Your task to perform on an android device: turn off wifi Image 0: 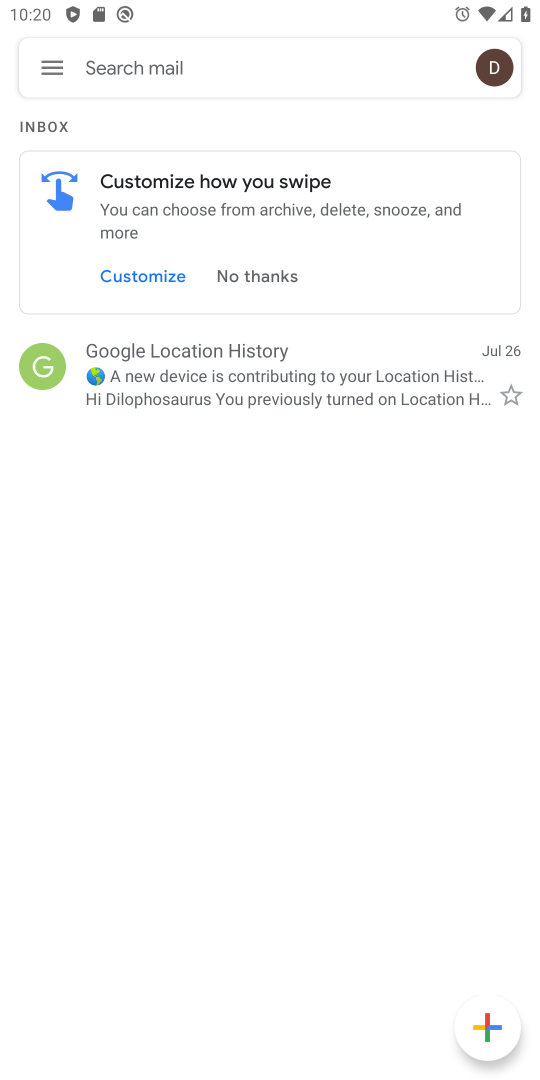
Step 0: press home button
Your task to perform on an android device: turn off wifi Image 1: 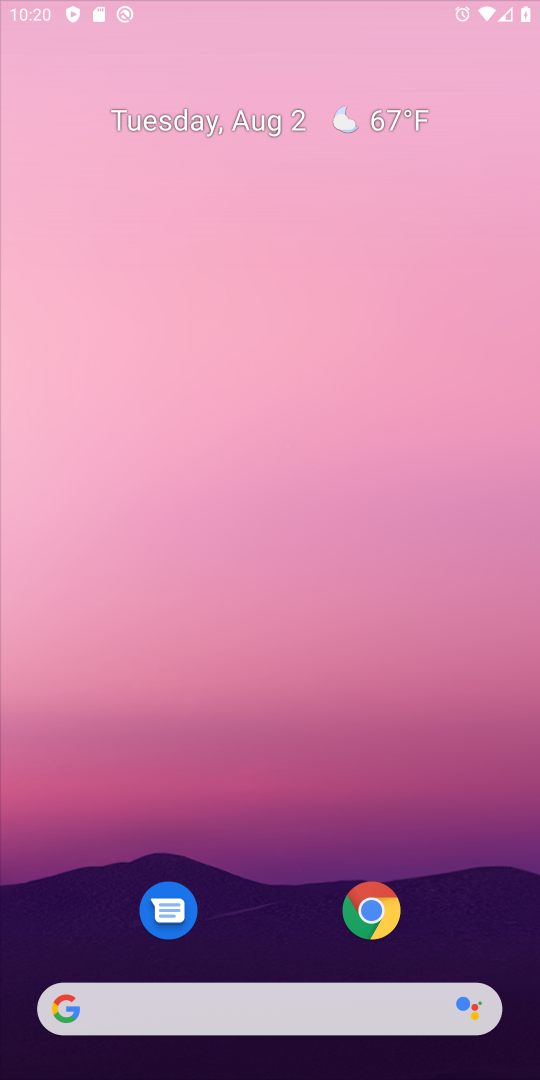
Step 1: drag from (262, 1056) to (281, 392)
Your task to perform on an android device: turn off wifi Image 2: 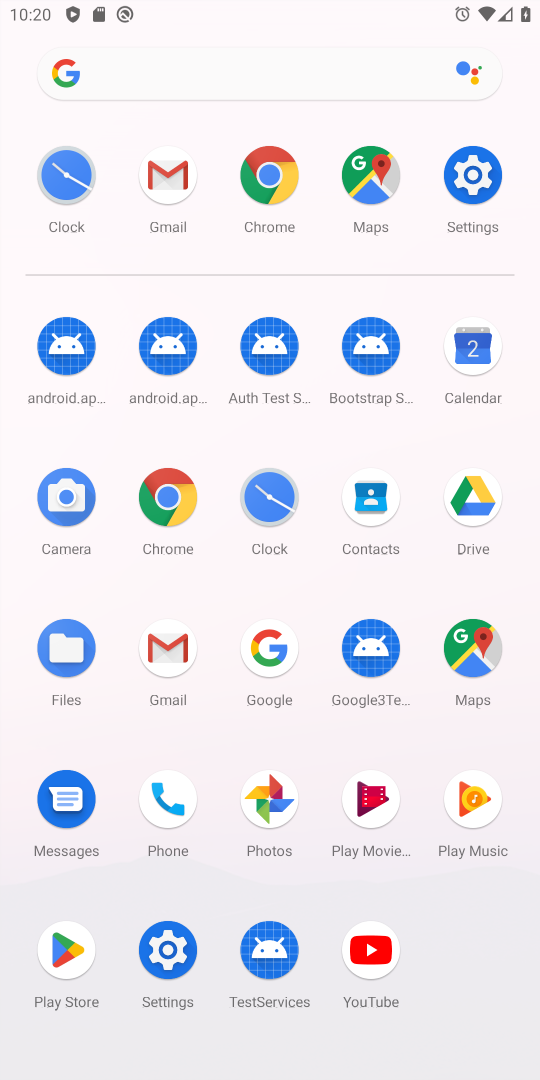
Step 2: click (469, 170)
Your task to perform on an android device: turn off wifi Image 3: 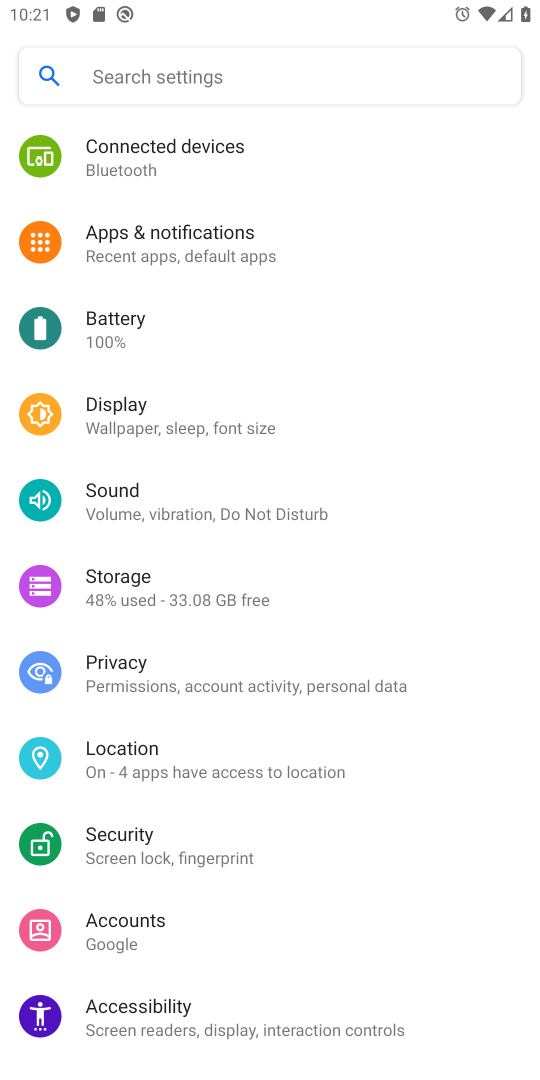
Step 3: drag from (161, 156) to (162, 790)
Your task to perform on an android device: turn off wifi Image 4: 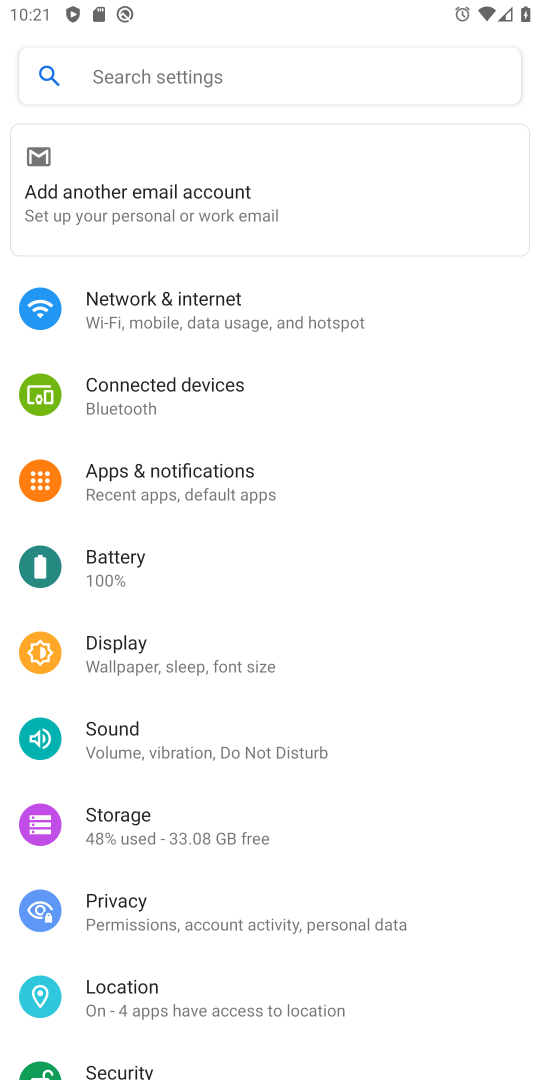
Step 4: click (136, 131)
Your task to perform on an android device: turn off wifi Image 5: 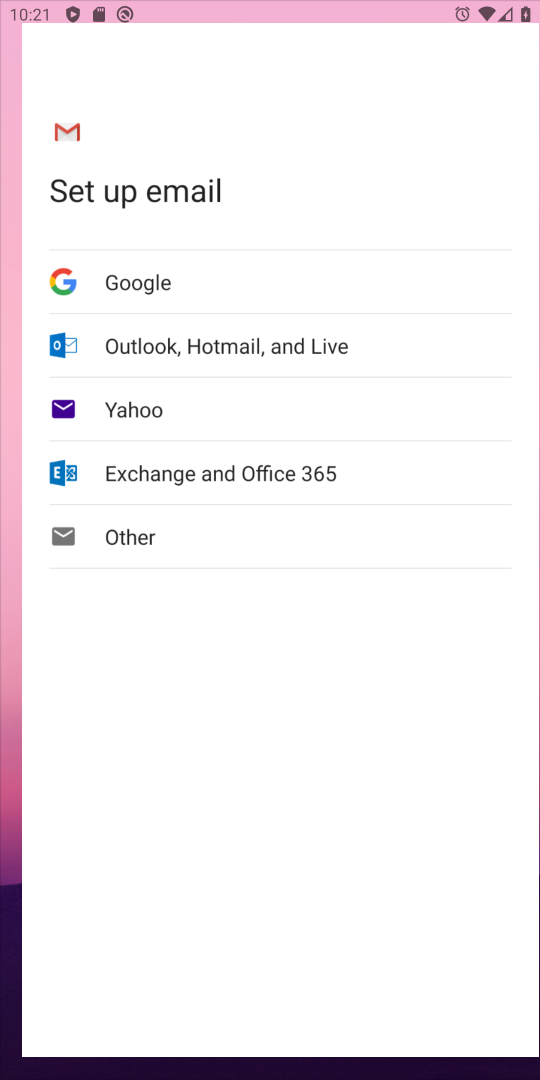
Step 5: click (142, 430)
Your task to perform on an android device: turn off wifi Image 6: 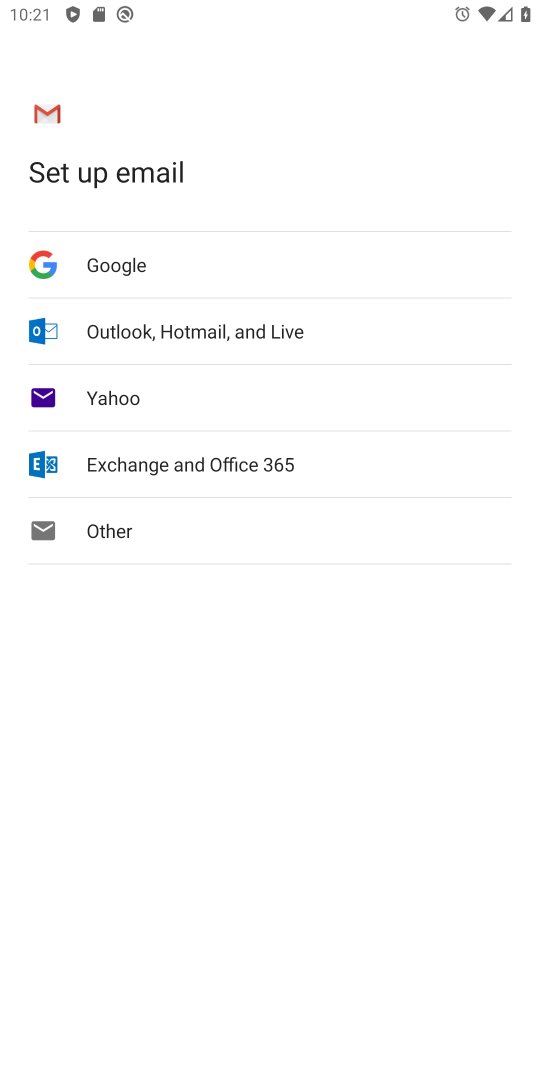
Step 6: press back button
Your task to perform on an android device: turn off wifi Image 7: 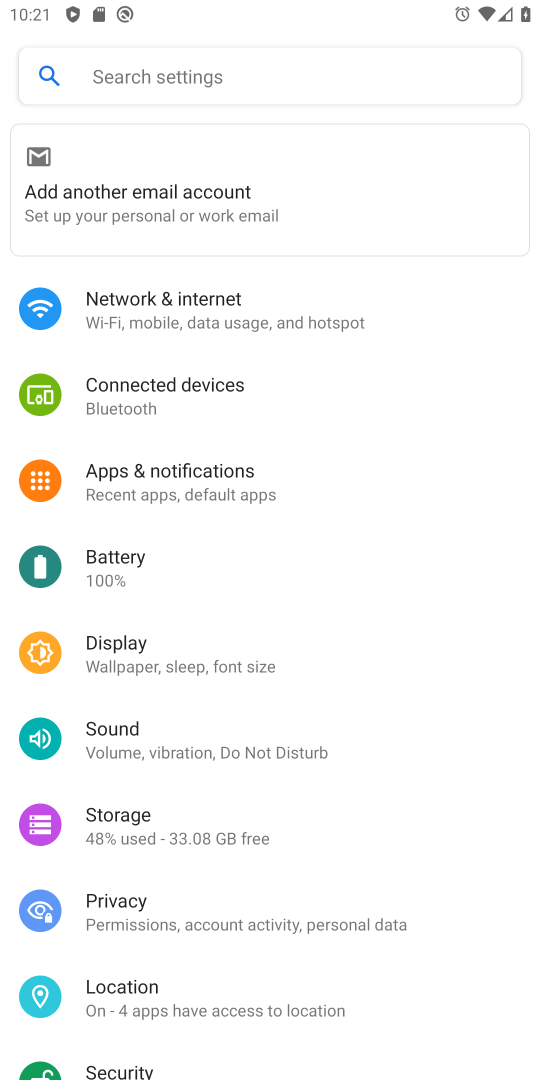
Step 7: click (164, 311)
Your task to perform on an android device: turn off wifi Image 8: 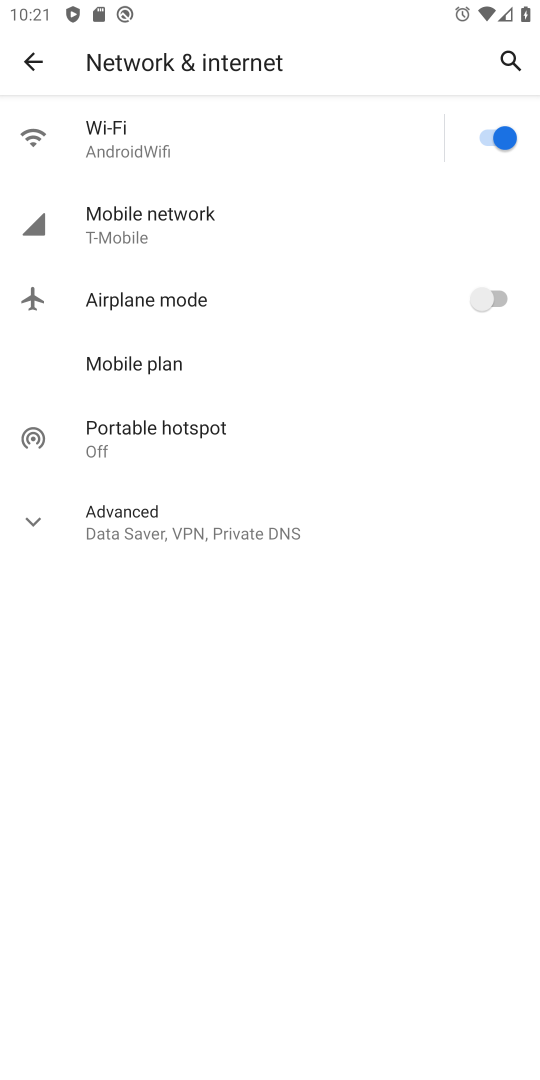
Step 8: click (135, 136)
Your task to perform on an android device: turn off wifi Image 9: 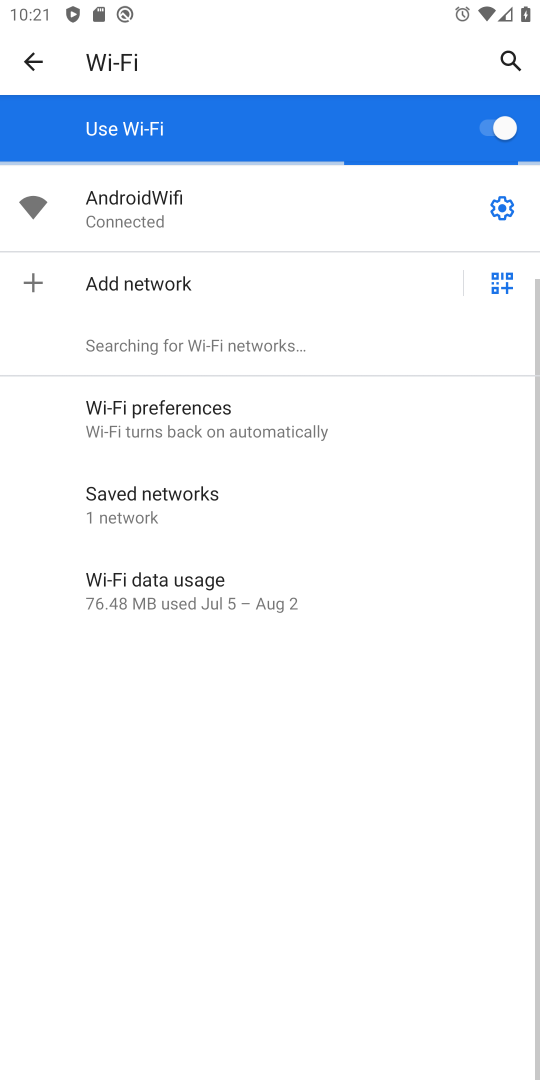
Step 9: click (490, 123)
Your task to perform on an android device: turn off wifi Image 10: 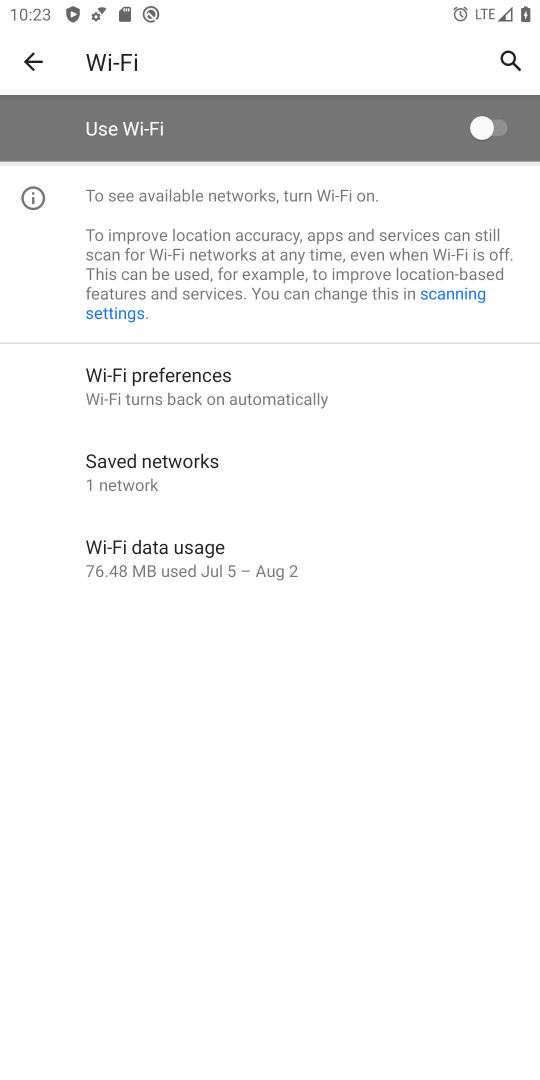
Step 10: task complete